Your task to perform on an android device: Go to location settings Image 0: 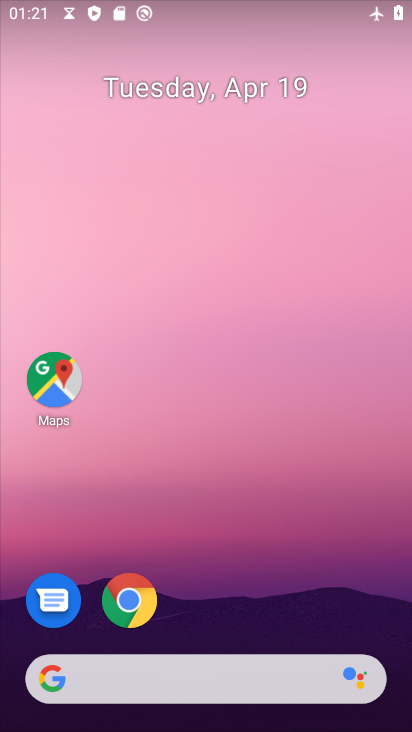
Step 0: drag from (216, 639) to (201, 100)
Your task to perform on an android device: Go to location settings Image 1: 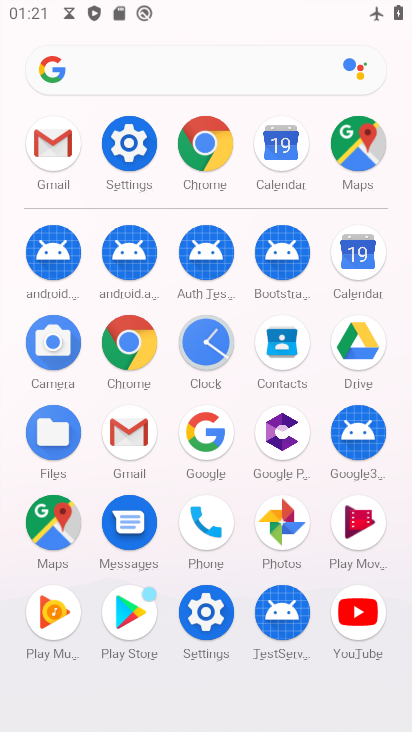
Step 1: click (149, 155)
Your task to perform on an android device: Go to location settings Image 2: 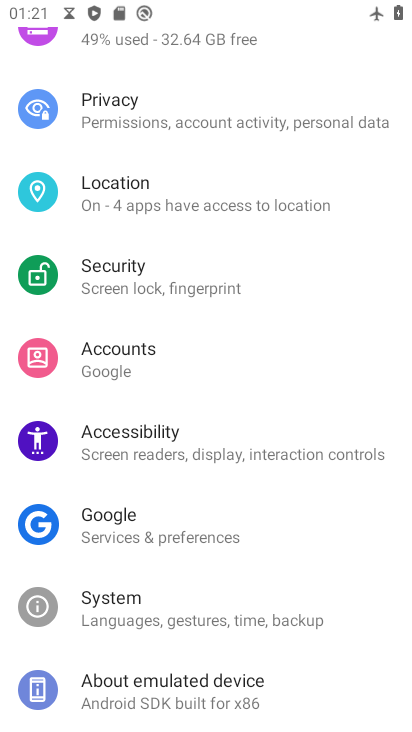
Step 2: click (111, 212)
Your task to perform on an android device: Go to location settings Image 3: 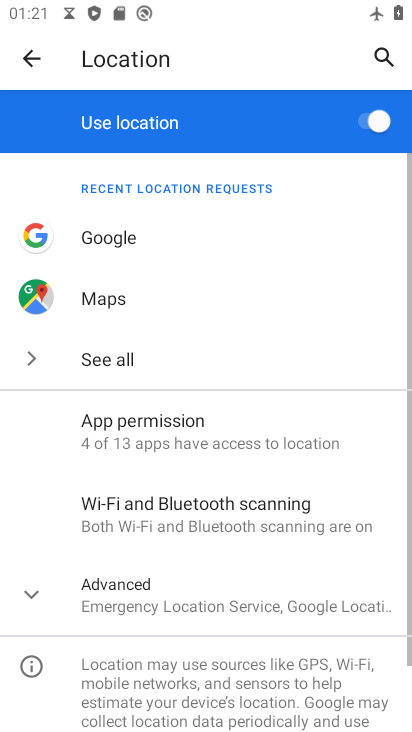
Step 3: click (131, 579)
Your task to perform on an android device: Go to location settings Image 4: 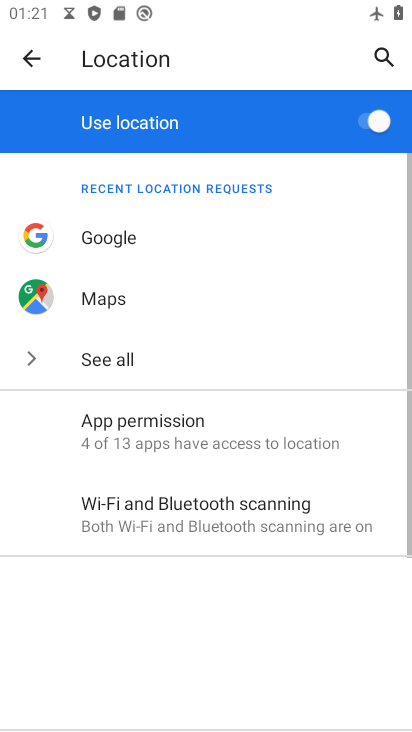
Step 4: task complete